Your task to perform on an android device: What's the news about the US economy? Image 0: 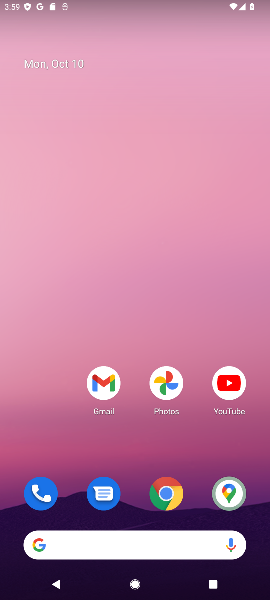
Step 0: click (137, 551)
Your task to perform on an android device: What's the news about the US economy? Image 1: 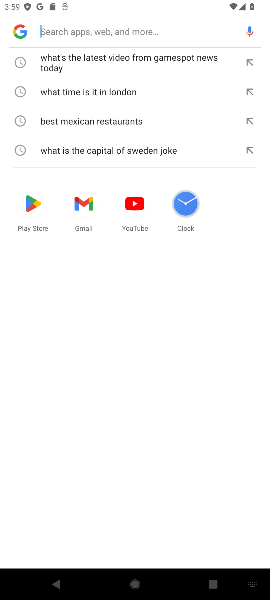
Step 1: type "news about the US economy"
Your task to perform on an android device: What's the news about the US economy? Image 2: 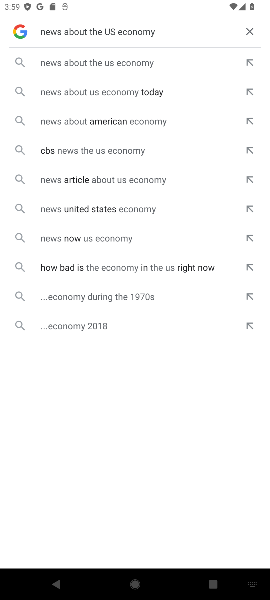
Step 2: click (165, 55)
Your task to perform on an android device: What's the news about the US economy? Image 3: 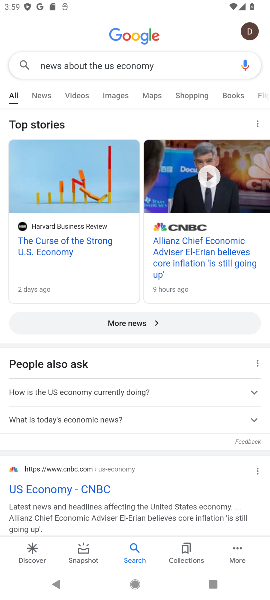
Step 3: task complete